Your task to perform on an android device: View the shopping cart on costco. Add logitech g pro to the cart on costco Image 0: 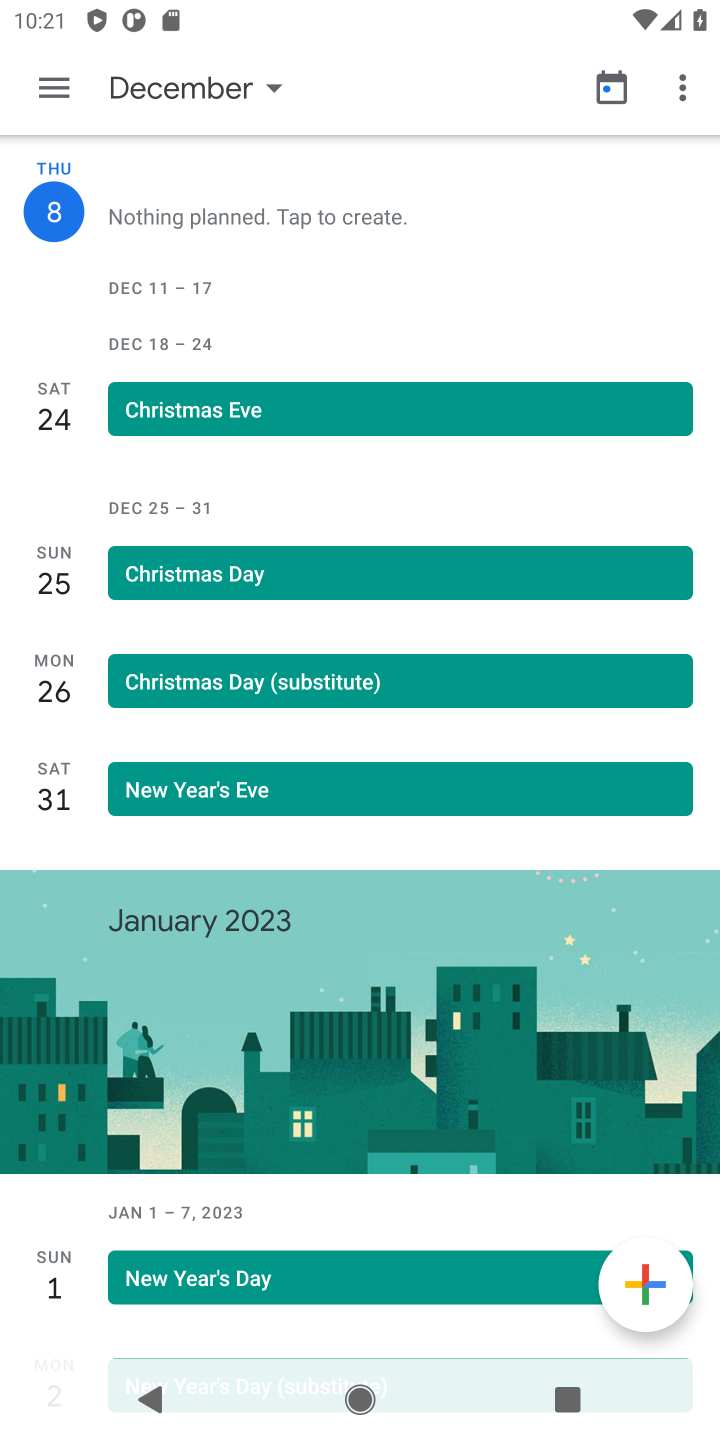
Step 0: press home button
Your task to perform on an android device: View the shopping cart on costco. Add logitech g pro to the cart on costco Image 1: 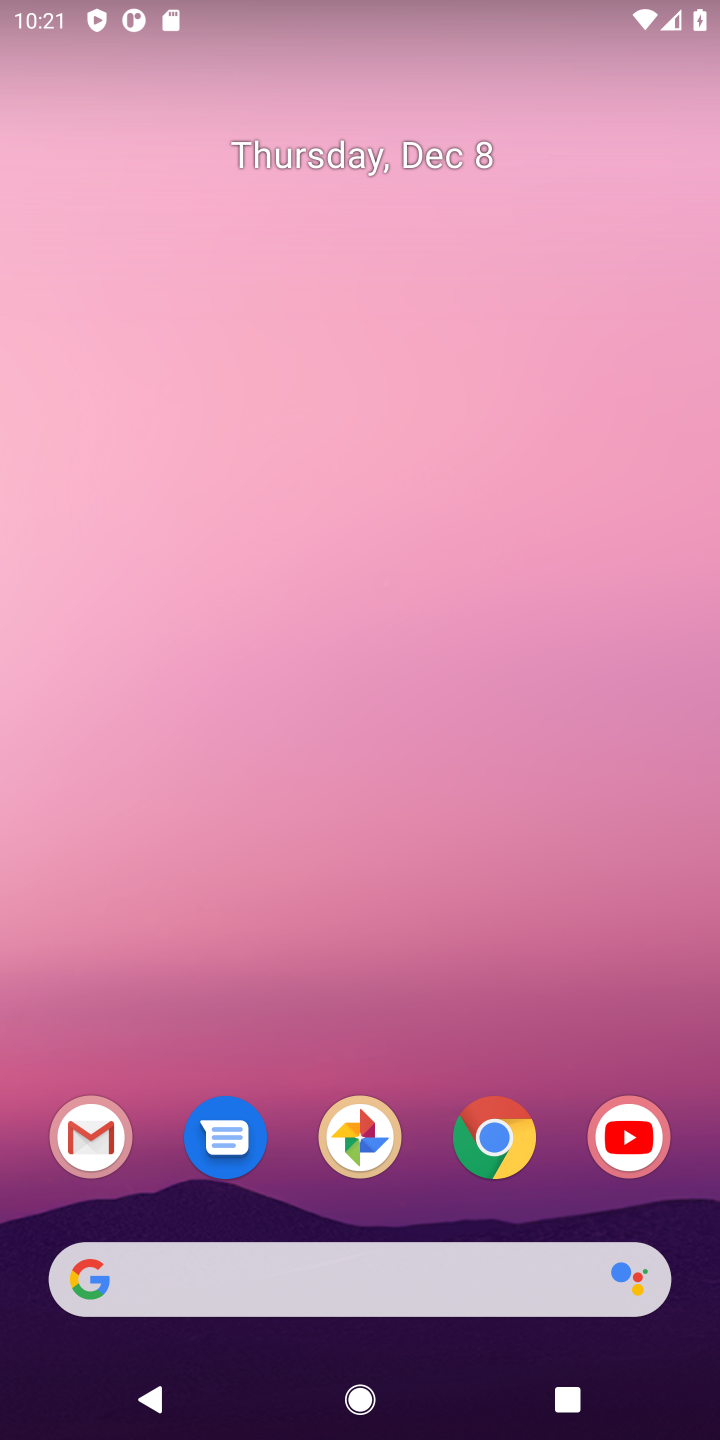
Step 1: click (499, 1142)
Your task to perform on an android device: View the shopping cart on costco. Add logitech g pro to the cart on costco Image 2: 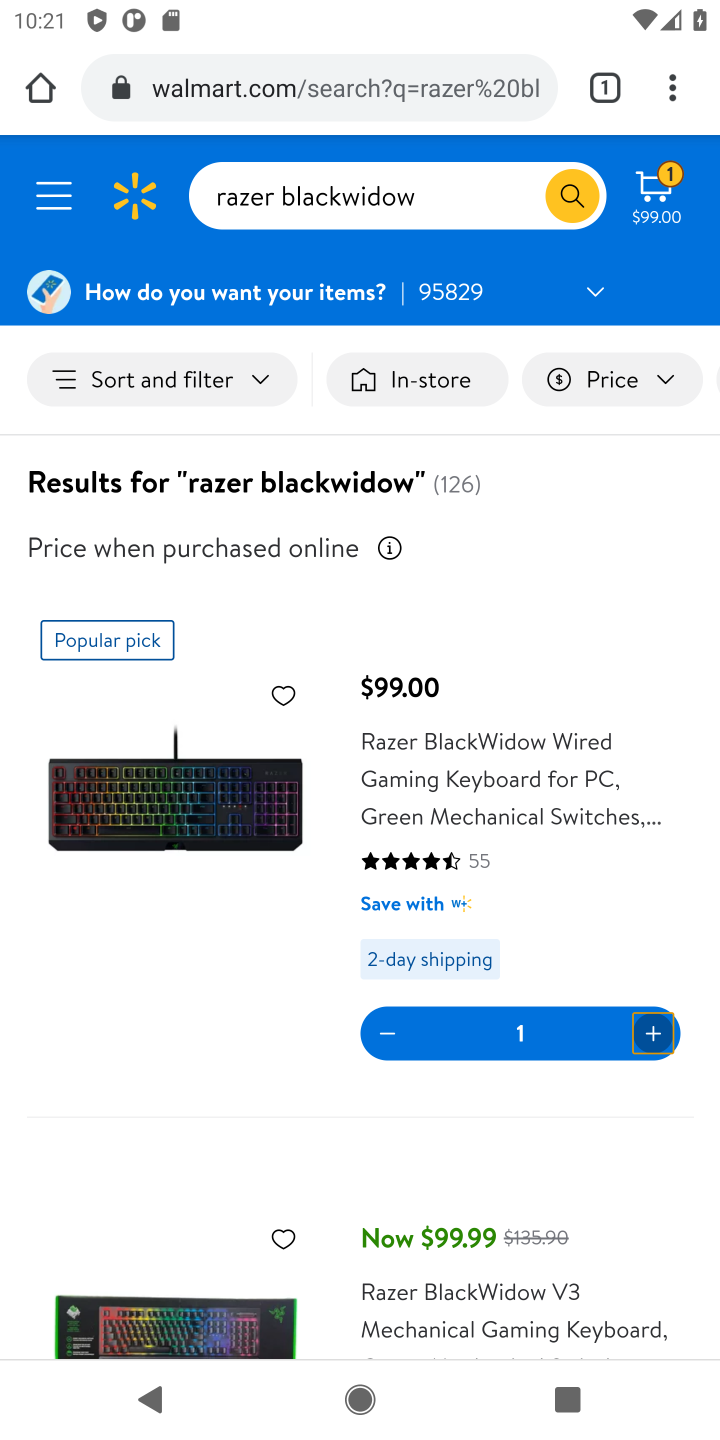
Step 2: click (386, 88)
Your task to perform on an android device: View the shopping cart on costco. Add logitech g pro to the cart on costco Image 3: 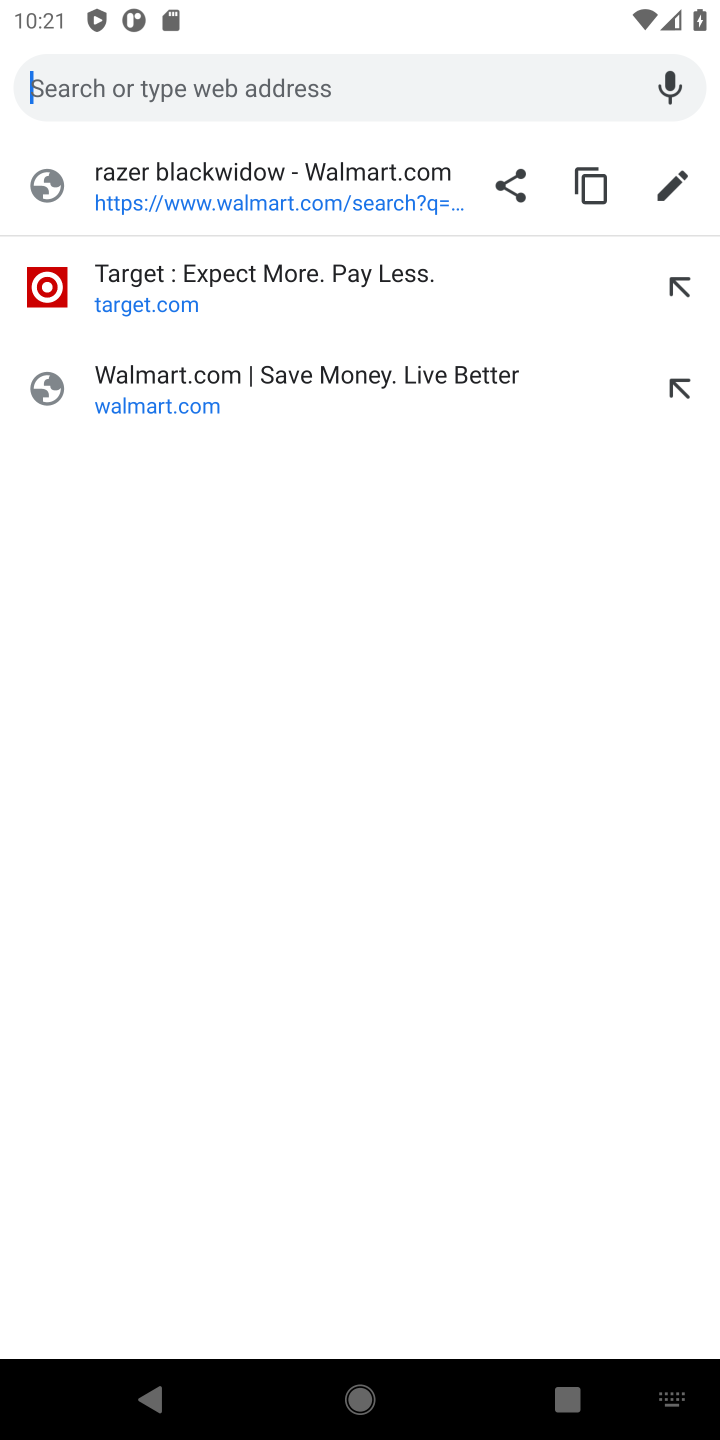
Step 3: type "costco"
Your task to perform on an android device: View the shopping cart on costco. Add logitech g pro to the cart on costco Image 4: 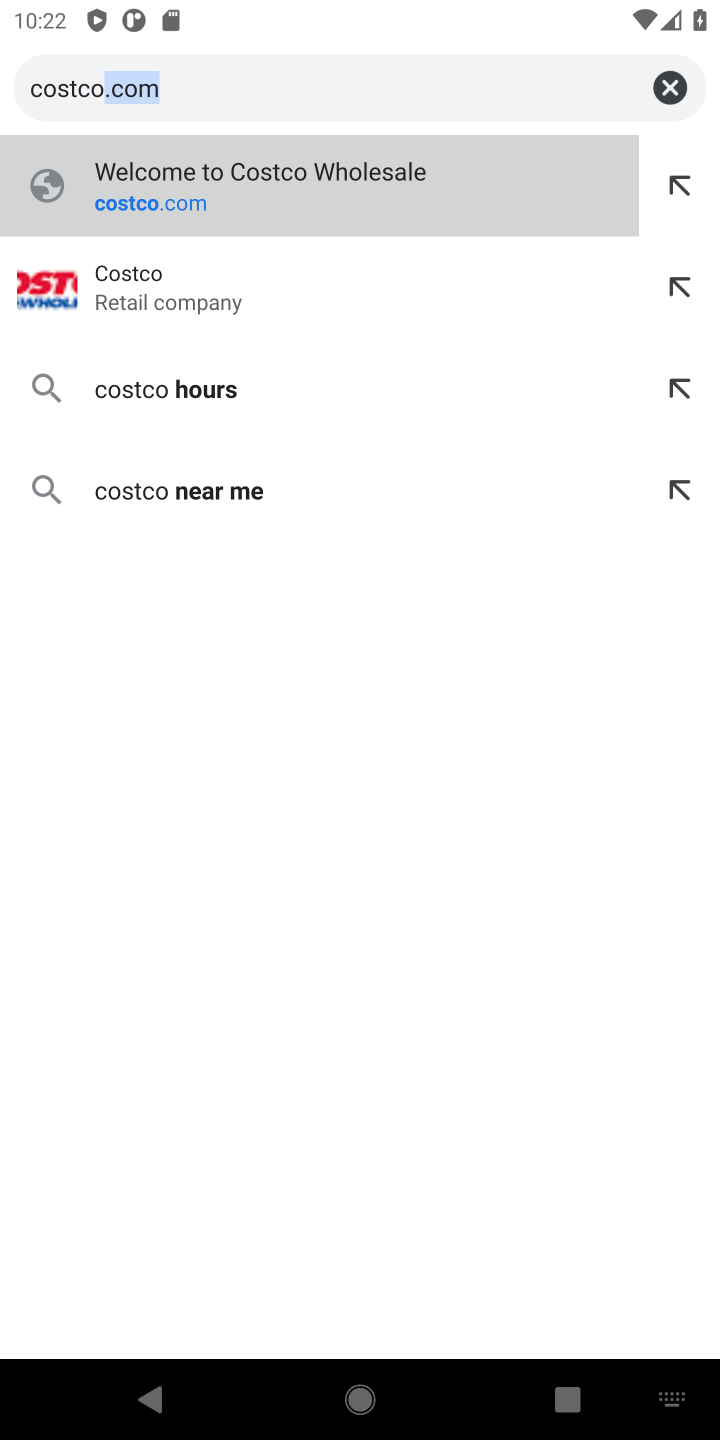
Step 4: click (232, 209)
Your task to perform on an android device: View the shopping cart on costco. Add logitech g pro to the cart on costco Image 5: 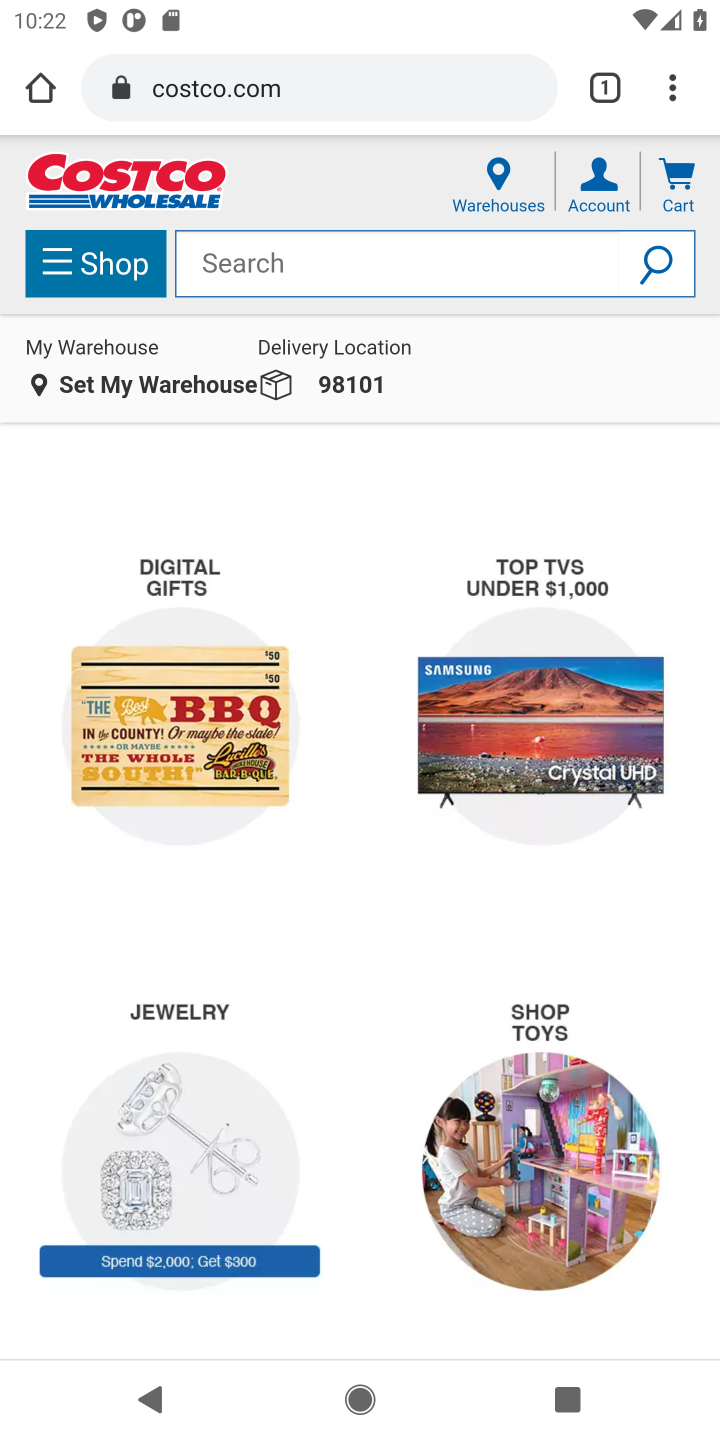
Step 5: click (549, 257)
Your task to perform on an android device: View the shopping cart on costco. Add logitech g pro to the cart on costco Image 6: 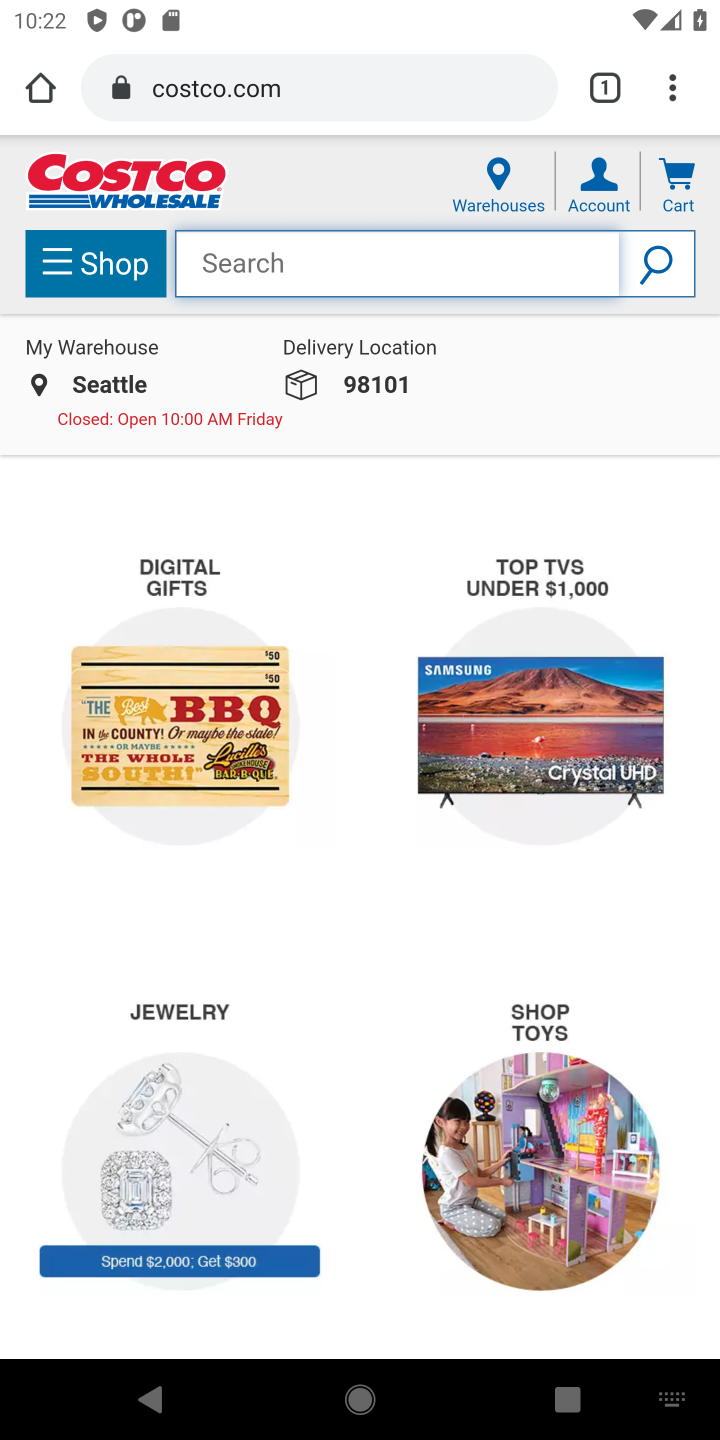
Step 6: type "logitech g pro"
Your task to perform on an android device: View the shopping cart on costco. Add logitech g pro to the cart on costco Image 7: 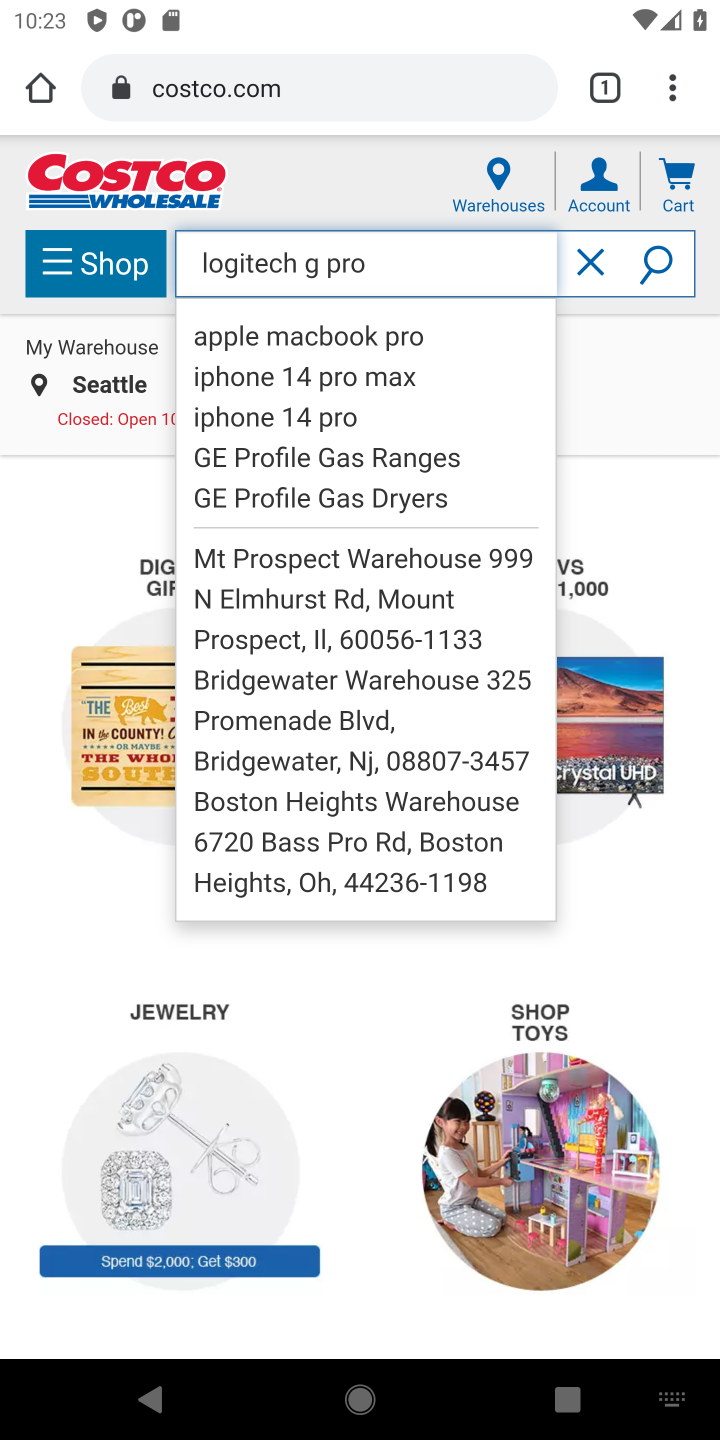
Step 7: click (401, 335)
Your task to perform on an android device: View the shopping cart on costco. Add logitech g pro to the cart on costco Image 8: 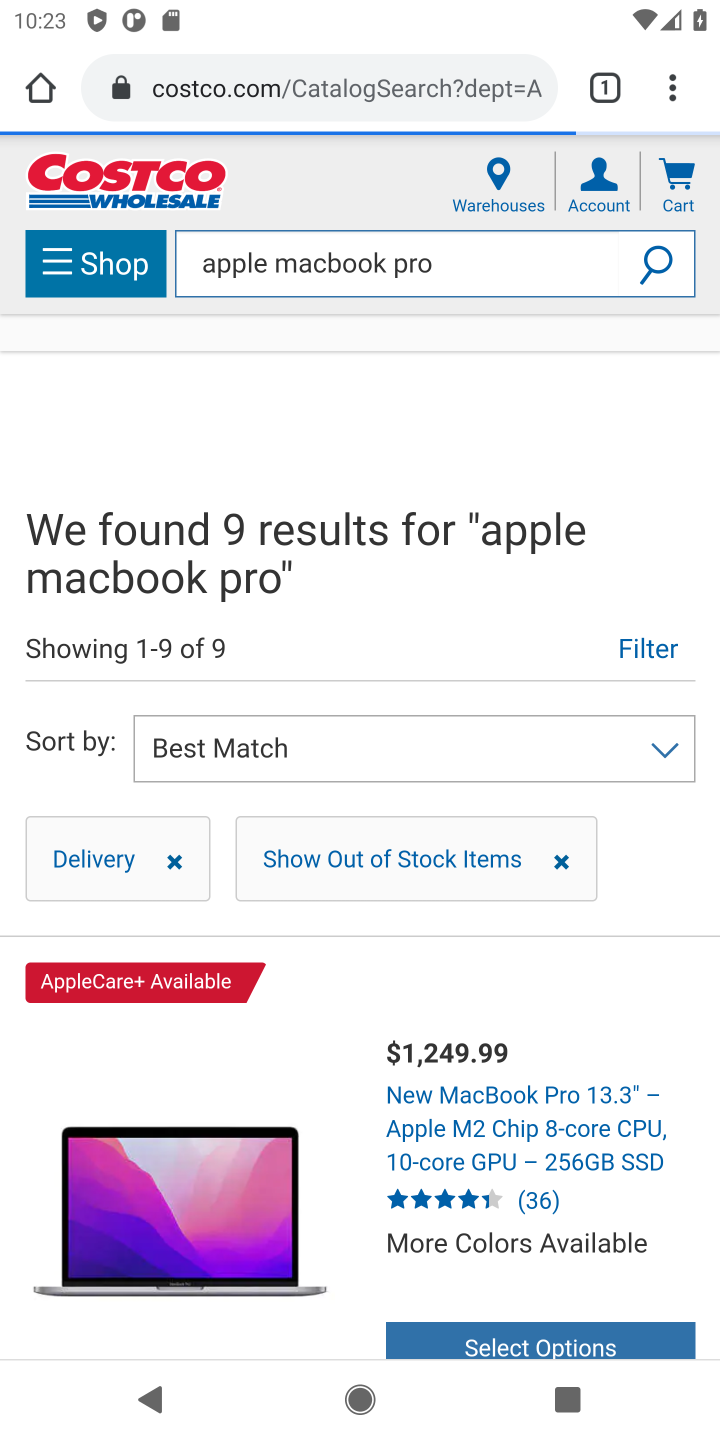
Step 8: task complete